Your task to perform on an android device: change text size in settings app Image 0: 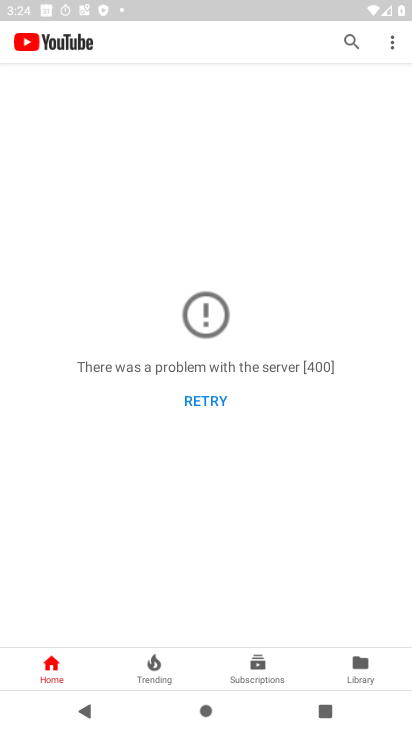
Step 0: press home button
Your task to perform on an android device: change text size in settings app Image 1: 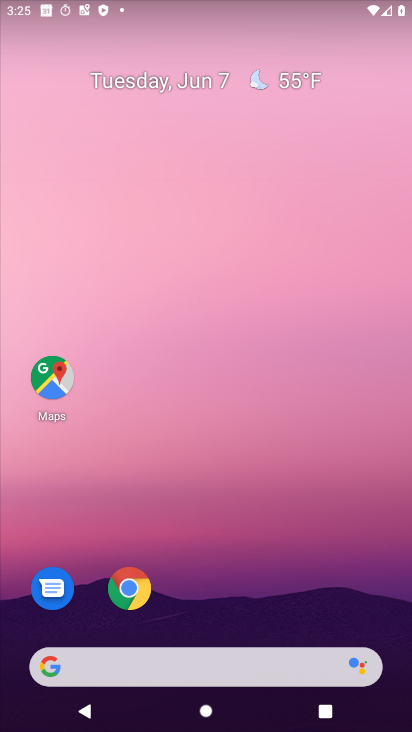
Step 1: drag from (288, 605) to (301, 239)
Your task to perform on an android device: change text size in settings app Image 2: 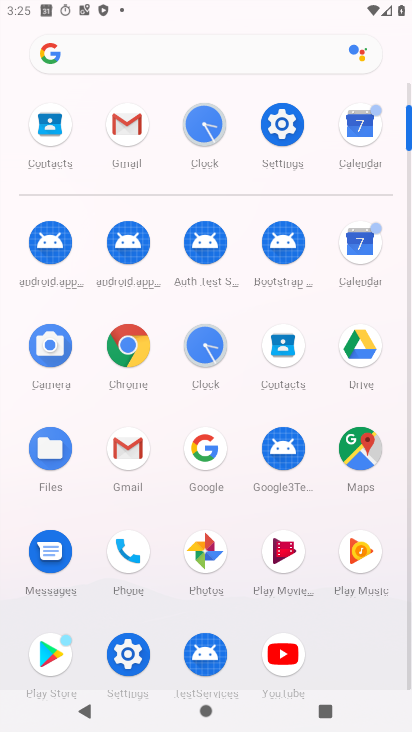
Step 2: click (287, 132)
Your task to perform on an android device: change text size in settings app Image 3: 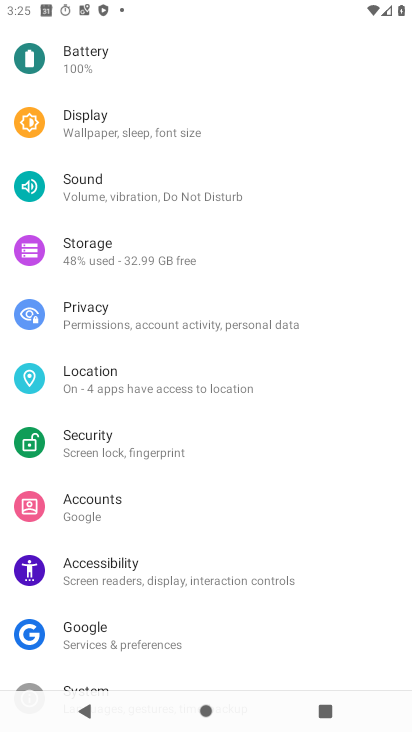
Step 3: click (104, 120)
Your task to perform on an android device: change text size in settings app Image 4: 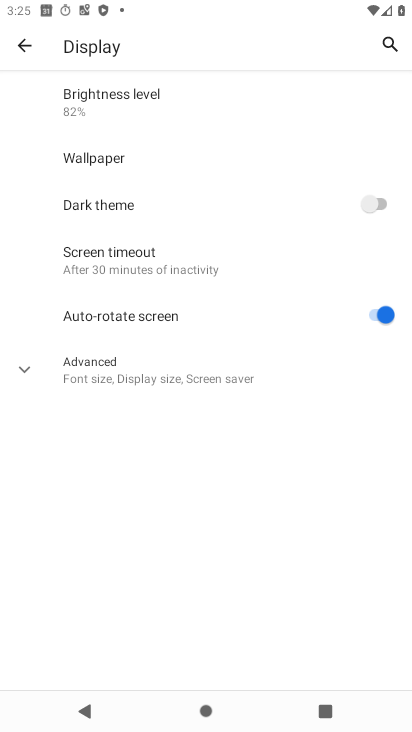
Step 4: click (107, 369)
Your task to perform on an android device: change text size in settings app Image 5: 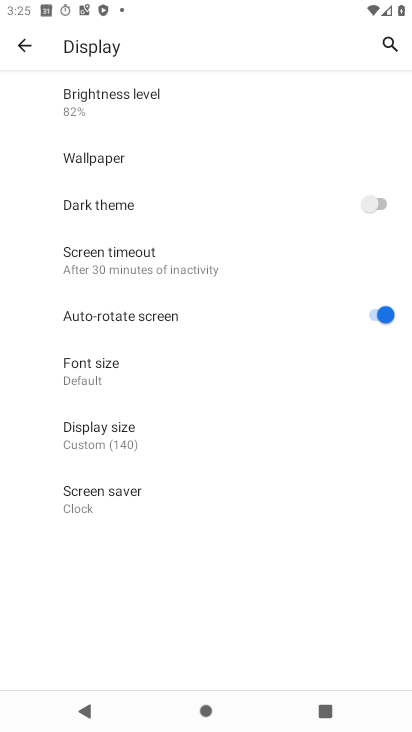
Step 5: click (89, 371)
Your task to perform on an android device: change text size in settings app Image 6: 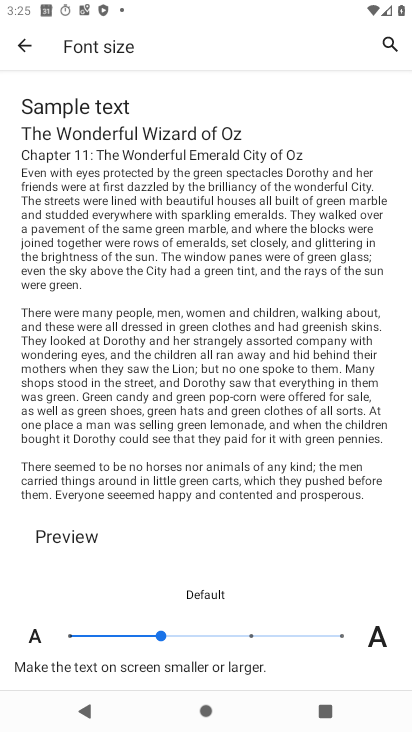
Step 6: click (197, 637)
Your task to perform on an android device: change text size in settings app Image 7: 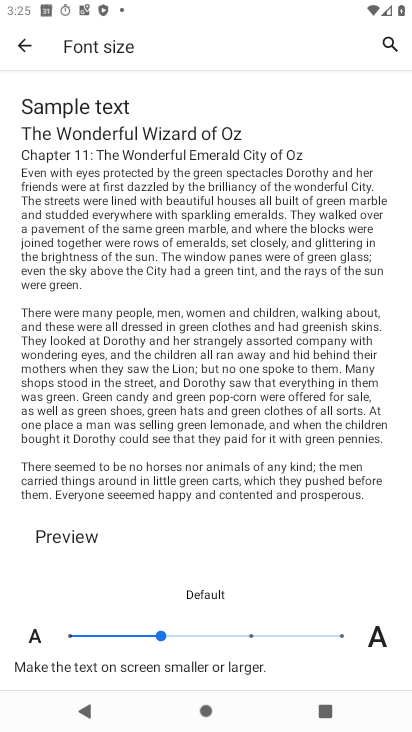
Step 7: drag from (163, 634) to (207, 632)
Your task to perform on an android device: change text size in settings app Image 8: 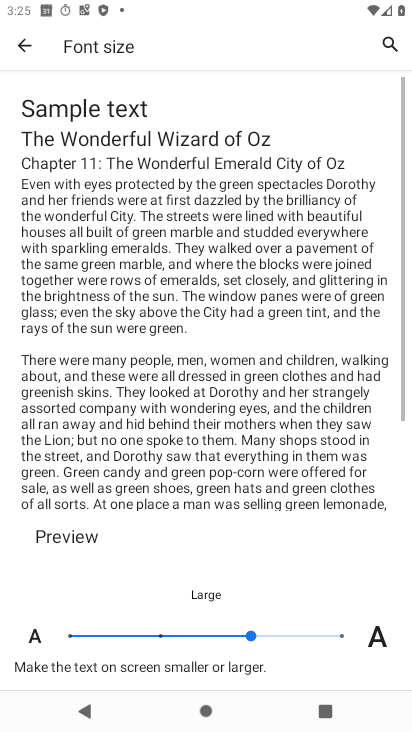
Step 8: click (207, 632)
Your task to perform on an android device: change text size in settings app Image 9: 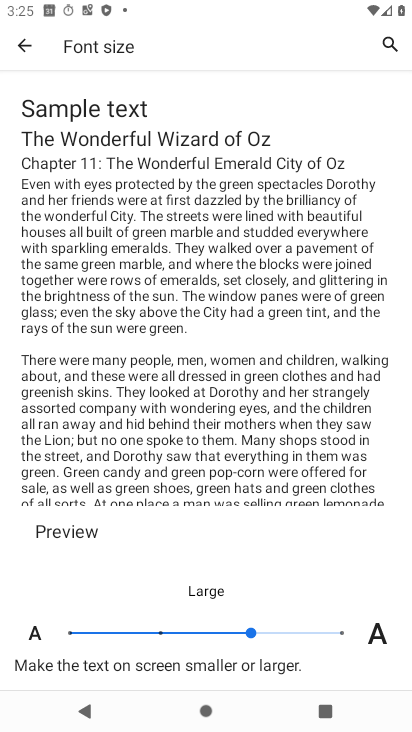
Step 9: click (288, 636)
Your task to perform on an android device: change text size in settings app Image 10: 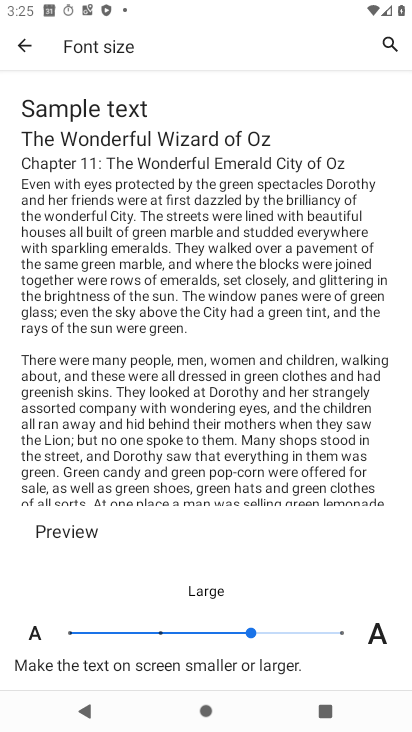
Step 10: click (322, 632)
Your task to perform on an android device: change text size in settings app Image 11: 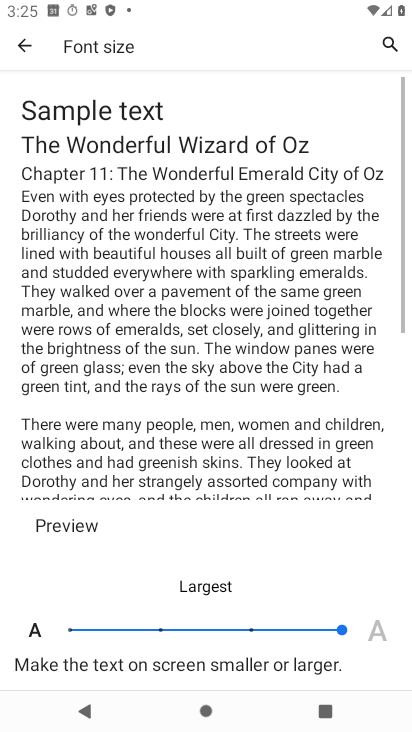
Step 11: click (200, 630)
Your task to perform on an android device: change text size in settings app Image 12: 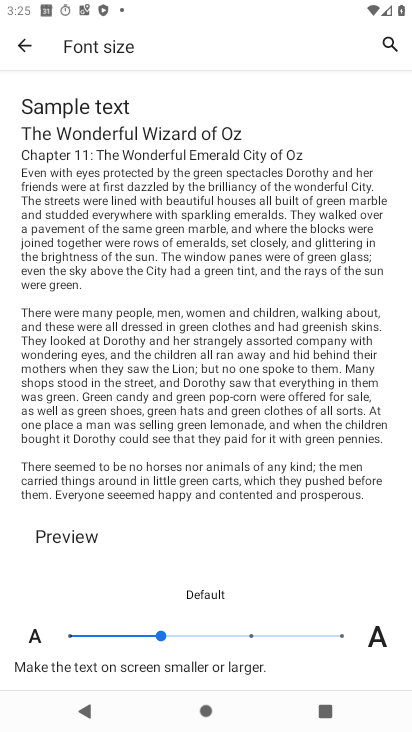
Step 12: click (221, 629)
Your task to perform on an android device: change text size in settings app Image 13: 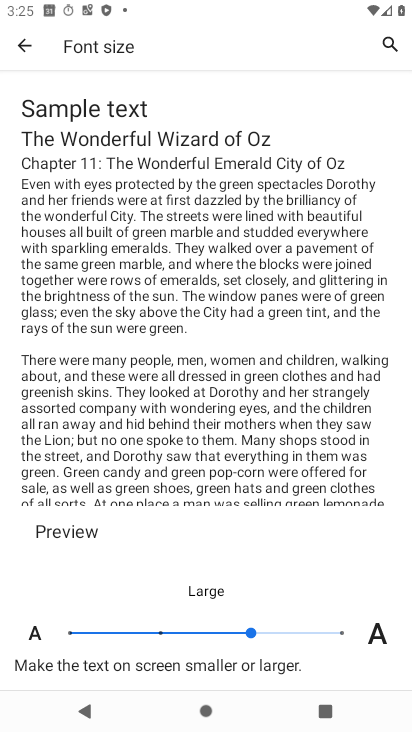
Step 13: task complete